Your task to perform on an android device: Search for vegetarian restaurants on Maps Image 0: 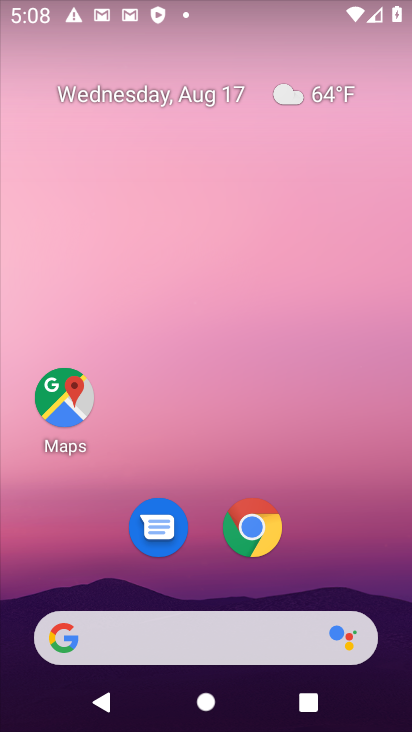
Step 0: drag from (95, 609) to (95, 258)
Your task to perform on an android device: Search for vegetarian restaurants on Maps Image 1: 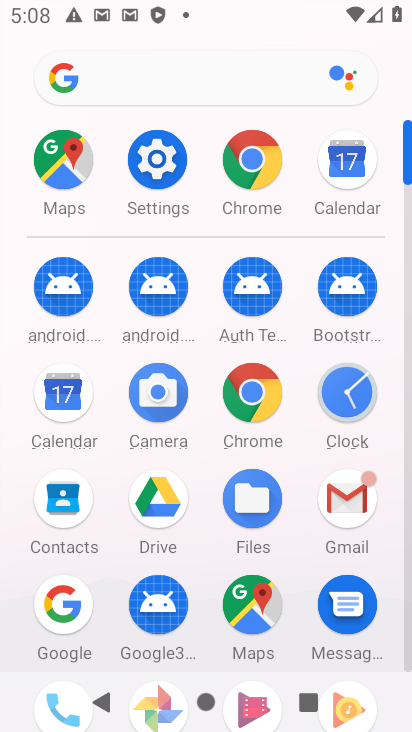
Step 1: click (61, 150)
Your task to perform on an android device: Search for vegetarian restaurants on Maps Image 2: 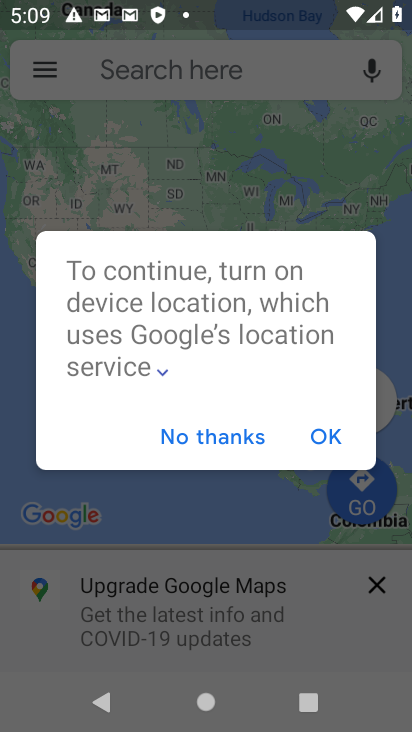
Step 2: click (325, 429)
Your task to perform on an android device: Search for vegetarian restaurants on Maps Image 3: 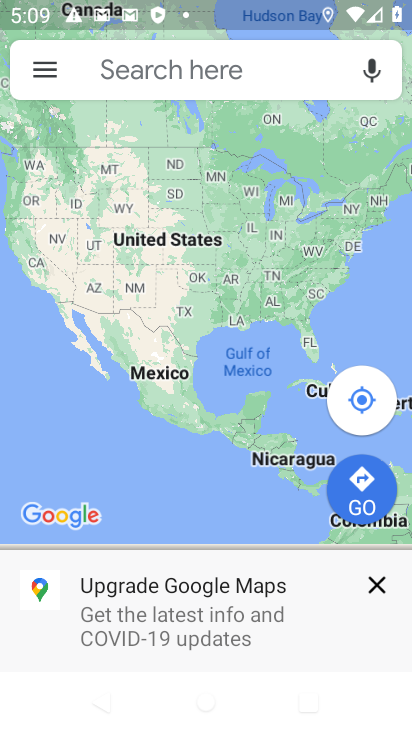
Step 3: click (261, 76)
Your task to perform on an android device: Search for vegetarian restaurants on Maps Image 4: 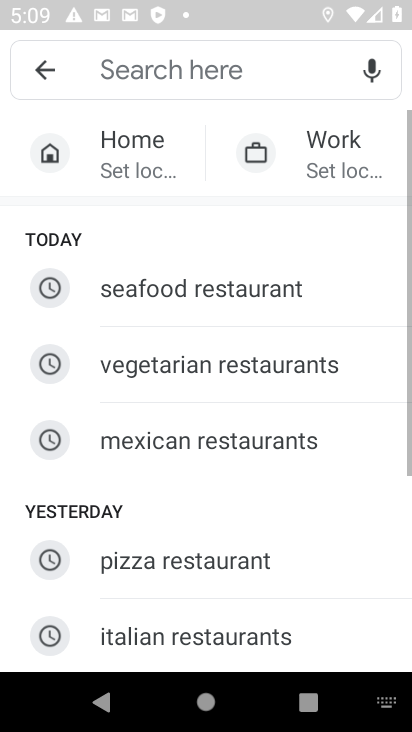
Step 4: click (146, 366)
Your task to perform on an android device: Search for vegetarian restaurants on Maps Image 5: 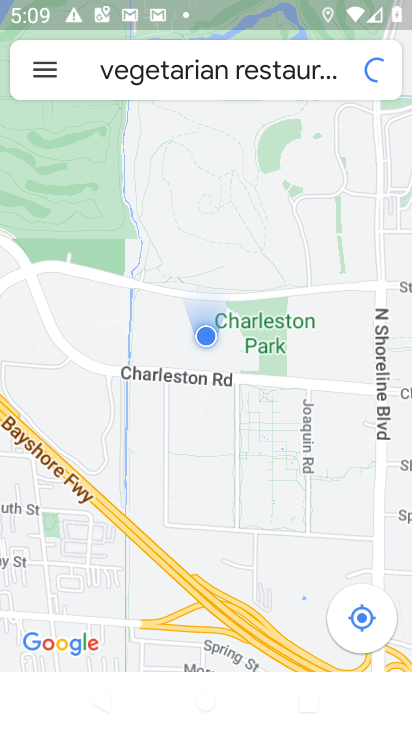
Step 5: task complete